Your task to perform on an android device: delete the emails in spam in the gmail app Image 0: 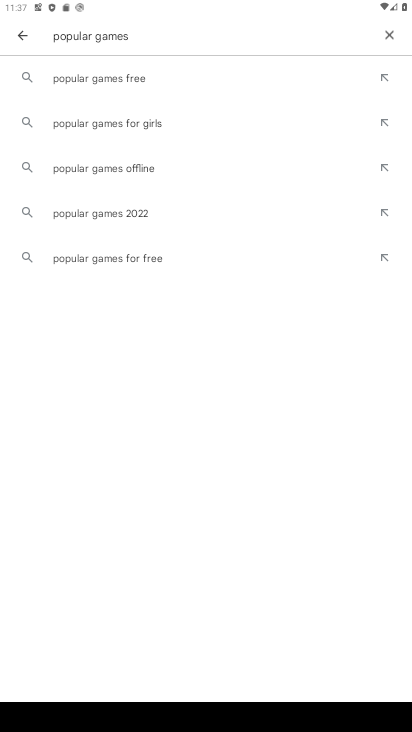
Step 0: press home button
Your task to perform on an android device: delete the emails in spam in the gmail app Image 1: 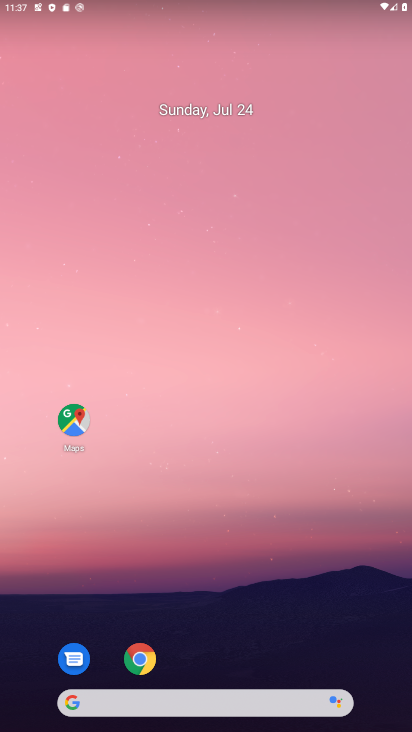
Step 1: drag from (79, 641) to (254, 75)
Your task to perform on an android device: delete the emails in spam in the gmail app Image 2: 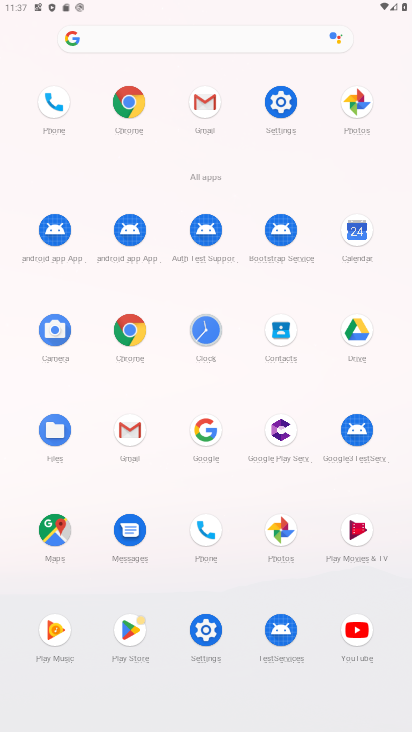
Step 2: click (129, 435)
Your task to perform on an android device: delete the emails in spam in the gmail app Image 3: 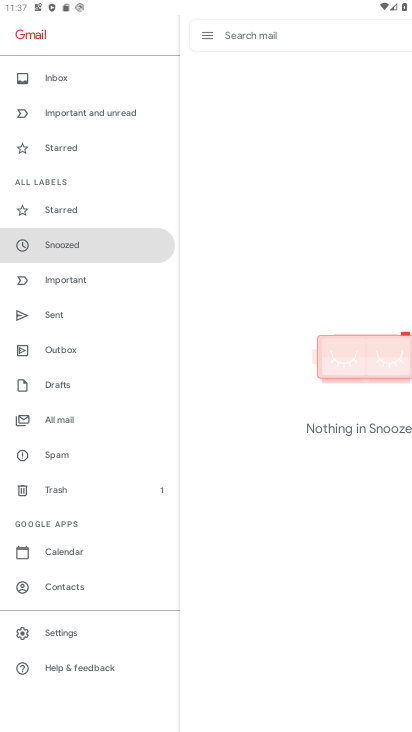
Step 3: click (52, 456)
Your task to perform on an android device: delete the emails in spam in the gmail app Image 4: 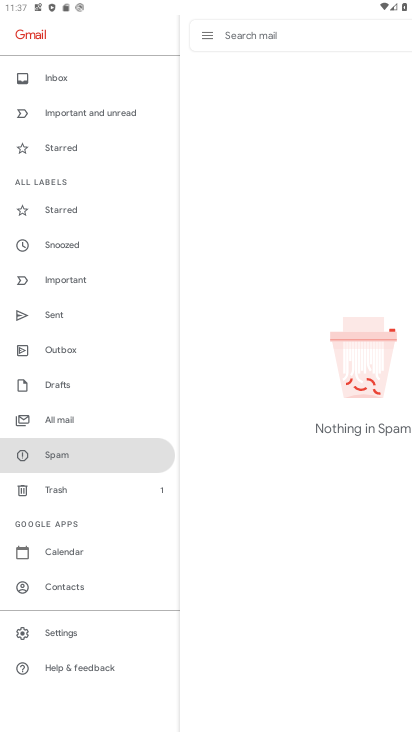
Step 4: task complete